Your task to perform on an android device: turn off data saver in the chrome app Image 0: 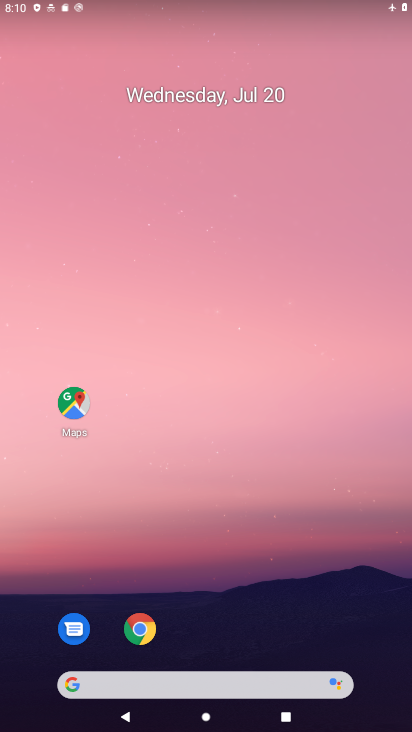
Step 0: drag from (259, 574) to (248, 179)
Your task to perform on an android device: turn off data saver in the chrome app Image 1: 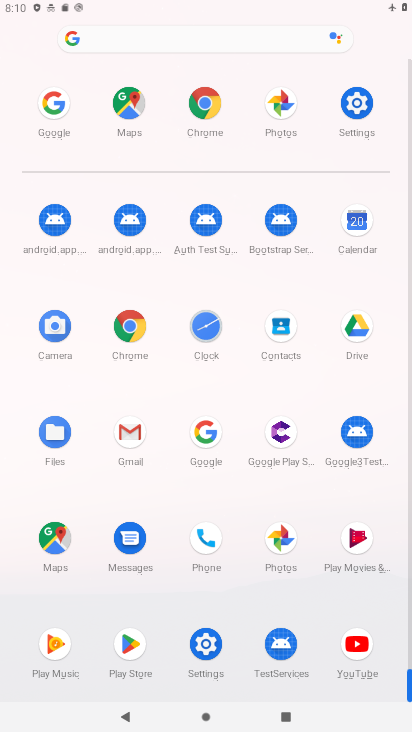
Step 1: click (207, 101)
Your task to perform on an android device: turn off data saver in the chrome app Image 2: 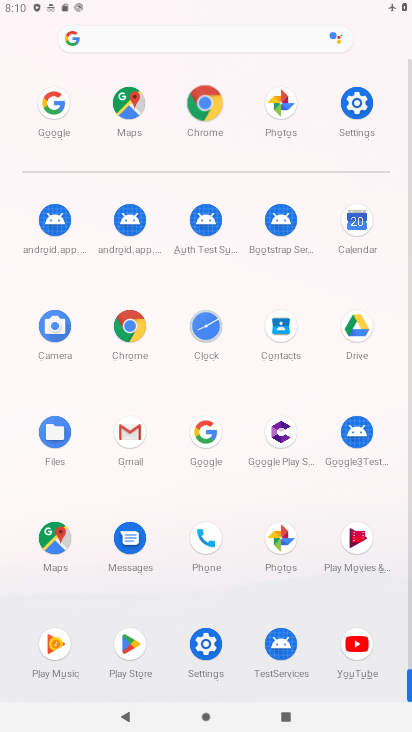
Step 2: click (207, 101)
Your task to perform on an android device: turn off data saver in the chrome app Image 3: 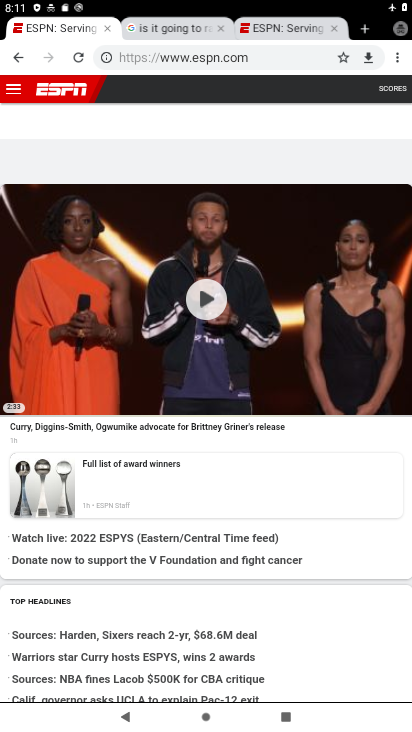
Step 3: drag from (393, 58) to (276, 354)
Your task to perform on an android device: turn off data saver in the chrome app Image 4: 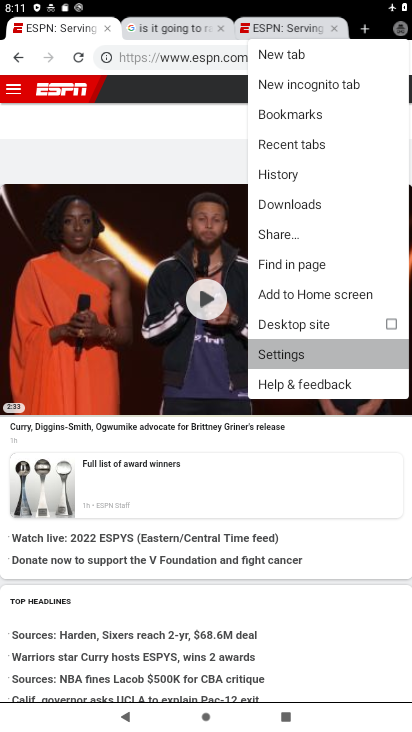
Step 4: click (278, 326)
Your task to perform on an android device: turn off data saver in the chrome app Image 5: 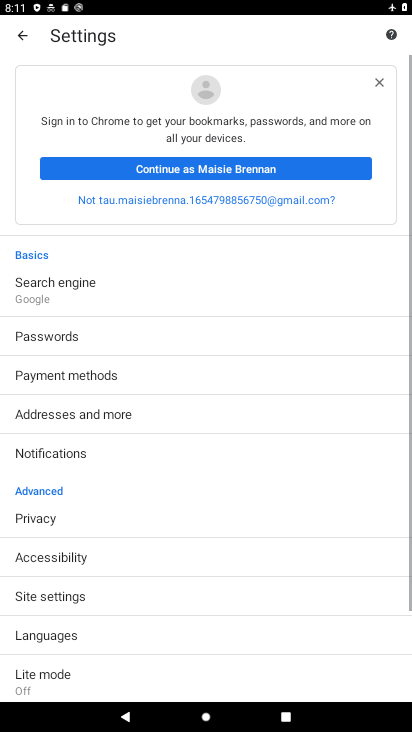
Step 5: drag from (129, 592) to (166, 142)
Your task to perform on an android device: turn off data saver in the chrome app Image 6: 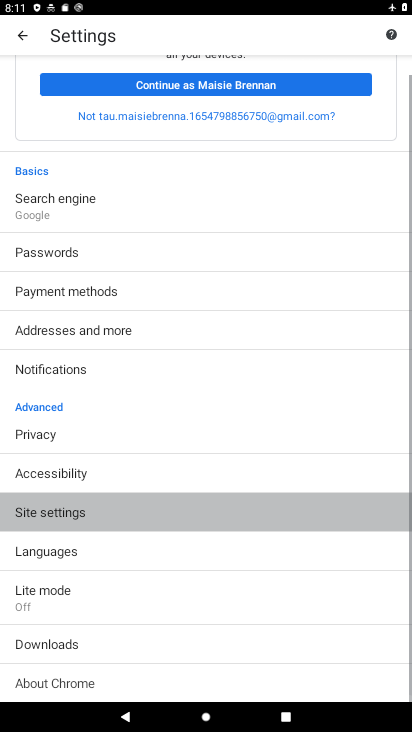
Step 6: drag from (93, 501) to (83, 274)
Your task to perform on an android device: turn off data saver in the chrome app Image 7: 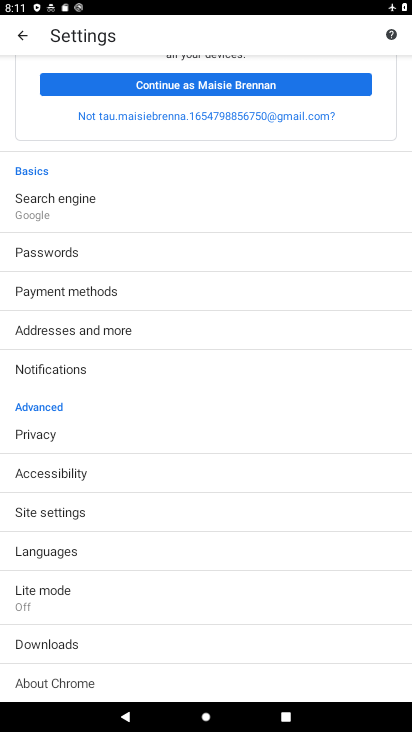
Step 7: drag from (120, 474) to (132, 283)
Your task to perform on an android device: turn off data saver in the chrome app Image 8: 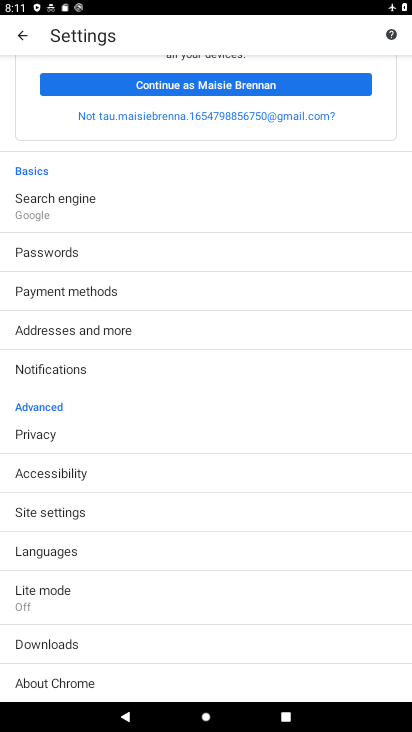
Step 8: drag from (142, 567) to (130, 386)
Your task to perform on an android device: turn off data saver in the chrome app Image 9: 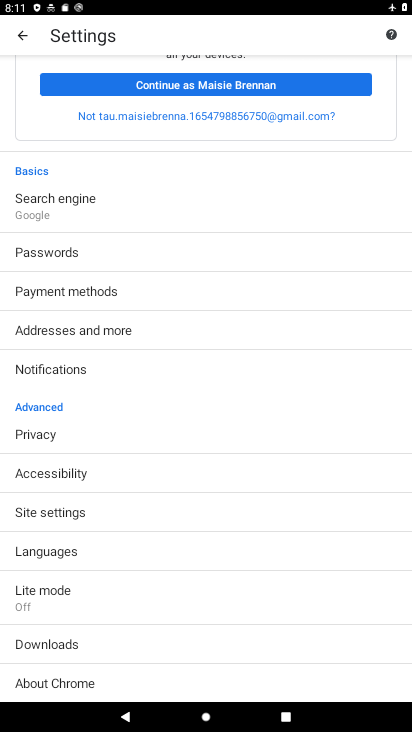
Step 9: drag from (128, 530) to (128, 294)
Your task to perform on an android device: turn off data saver in the chrome app Image 10: 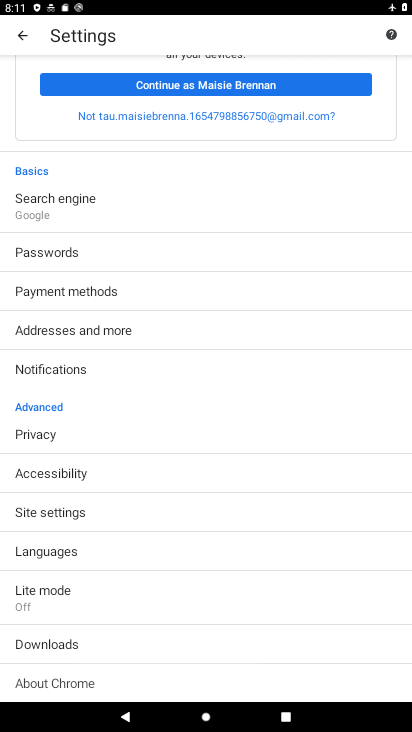
Step 10: drag from (154, 504) to (185, 291)
Your task to perform on an android device: turn off data saver in the chrome app Image 11: 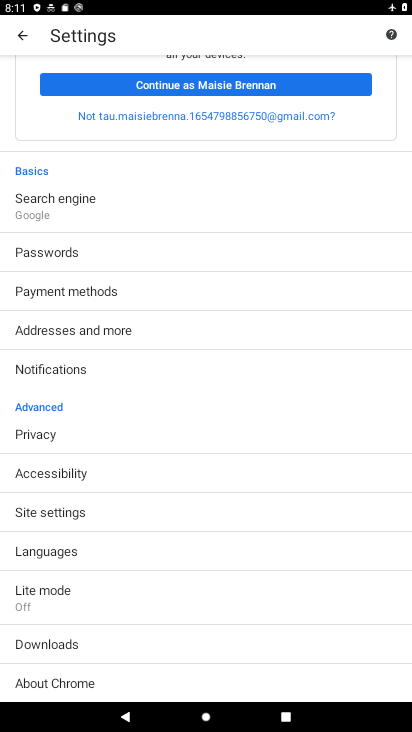
Step 11: drag from (181, 471) to (243, 176)
Your task to perform on an android device: turn off data saver in the chrome app Image 12: 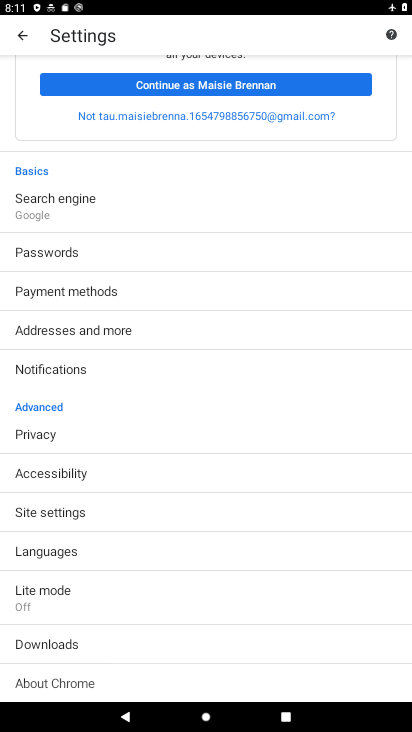
Step 12: drag from (181, 509) to (181, 246)
Your task to perform on an android device: turn off data saver in the chrome app Image 13: 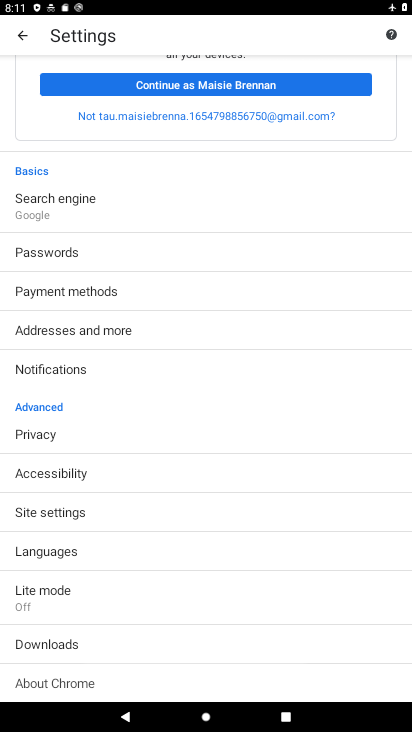
Step 13: drag from (123, 474) to (158, 236)
Your task to perform on an android device: turn off data saver in the chrome app Image 14: 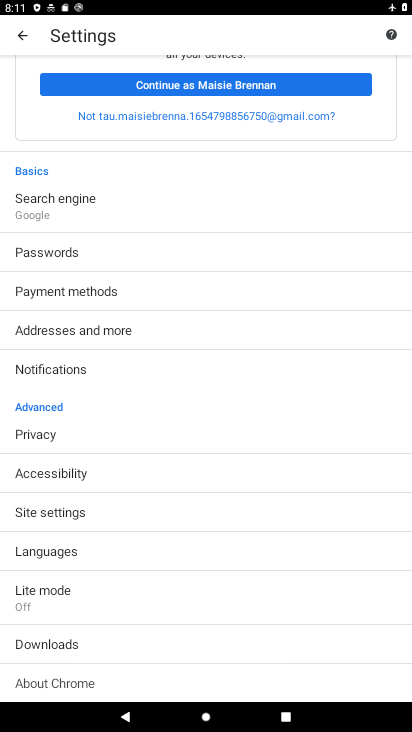
Step 14: drag from (87, 517) to (100, 222)
Your task to perform on an android device: turn off data saver in the chrome app Image 15: 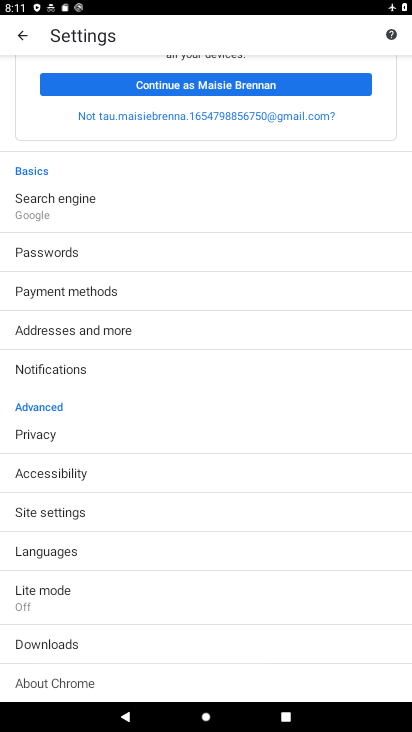
Step 15: drag from (100, 482) to (151, 178)
Your task to perform on an android device: turn off data saver in the chrome app Image 16: 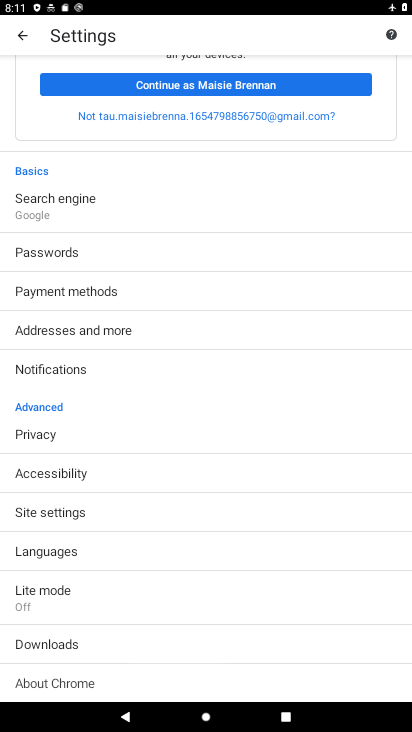
Step 16: drag from (190, 396) to (214, 141)
Your task to perform on an android device: turn off data saver in the chrome app Image 17: 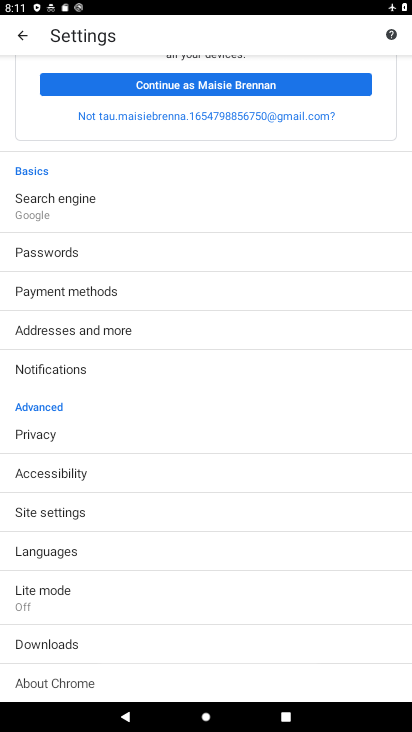
Step 17: drag from (127, 412) to (130, 154)
Your task to perform on an android device: turn off data saver in the chrome app Image 18: 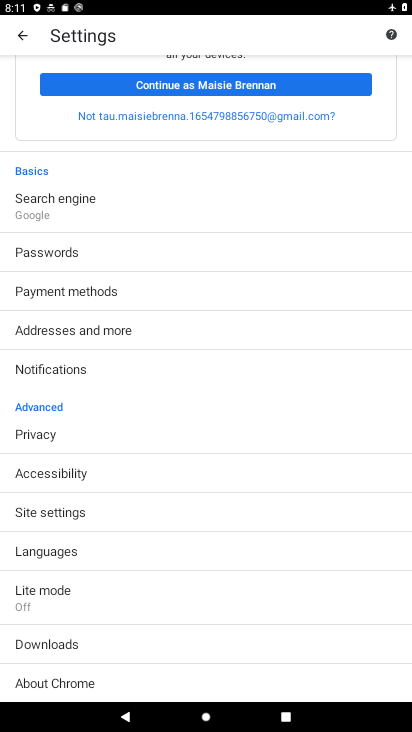
Step 18: click (43, 588)
Your task to perform on an android device: turn off data saver in the chrome app Image 19: 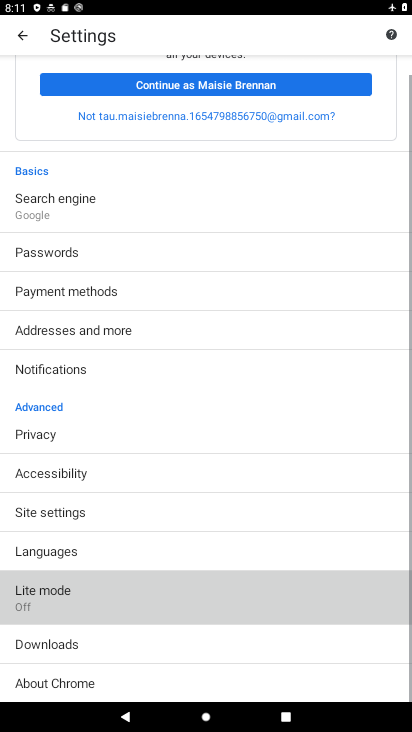
Step 19: click (42, 590)
Your task to perform on an android device: turn off data saver in the chrome app Image 20: 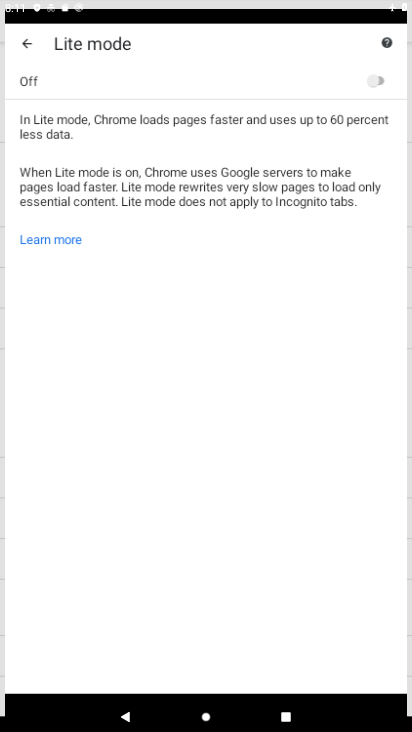
Step 20: click (42, 592)
Your task to perform on an android device: turn off data saver in the chrome app Image 21: 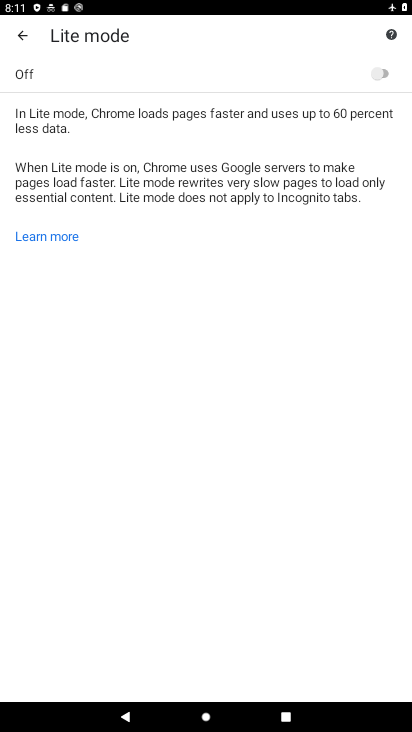
Step 21: click (42, 592)
Your task to perform on an android device: turn off data saver in the chrome app Image 22: 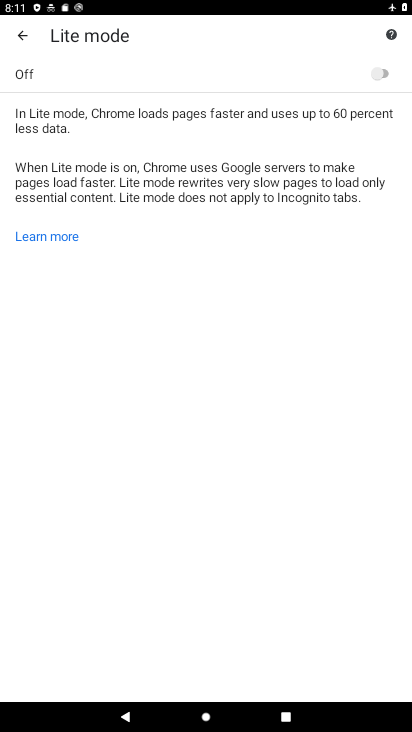
Step 22: task complete